Your task to perform on an android device: set an alarm Image 0: 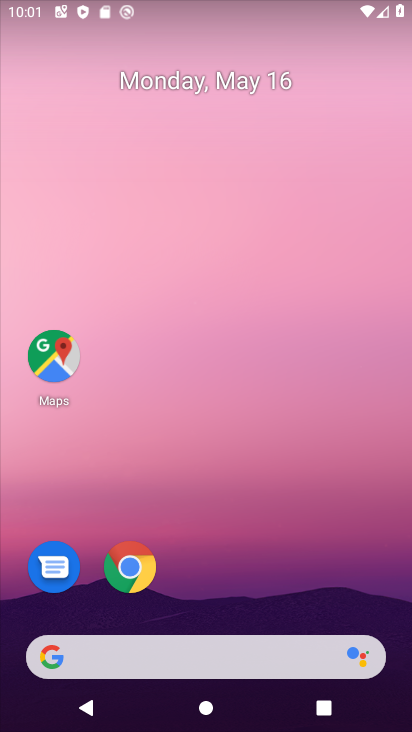
Step 0: drag from (153, 368) to (174, 177)
Your task to perform on an android device: set an alarm Image 1: 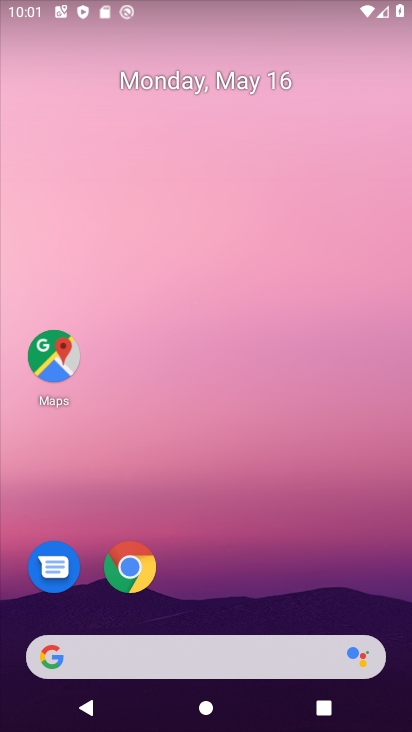
Step 1: drag from (181, 619) to (191, 253)
Your task to perform on an android device: set an alarm Image 2: 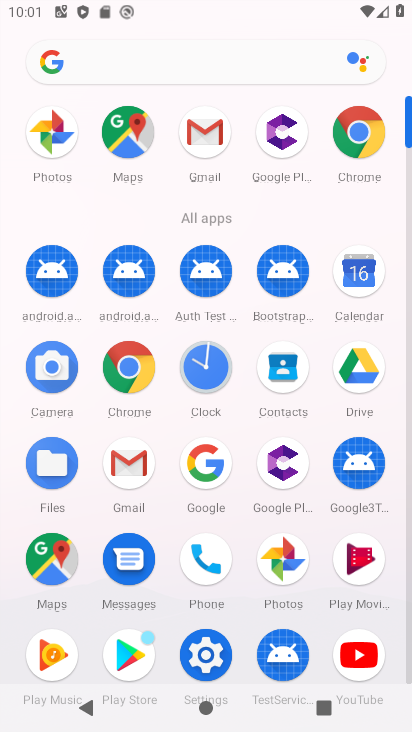
Step 2: click (204, 351)
Your task to perform on an android device: set an alarm Image 3: 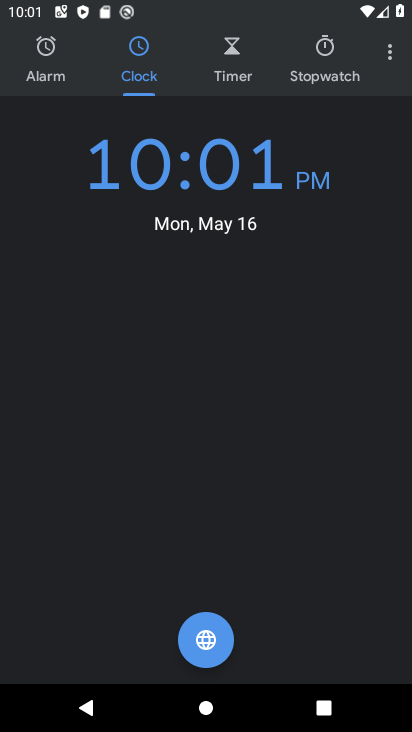
Step 3: click (44, 55)
Your task to perform on an android device: set an alarm Image 4: 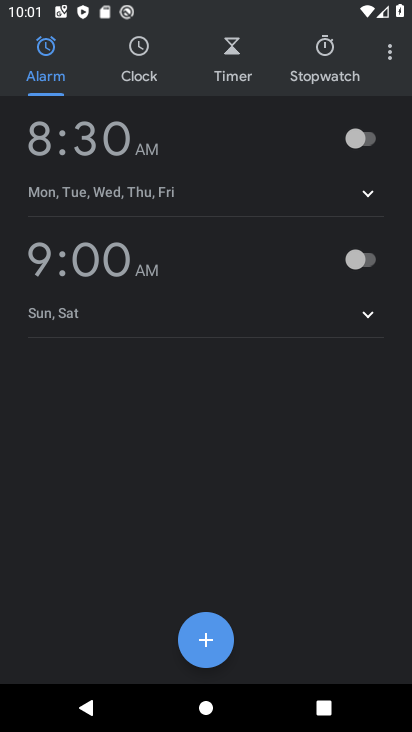
Step 4: click (212, 650)
Your task to perform on an android device: set an alarm Image 5: 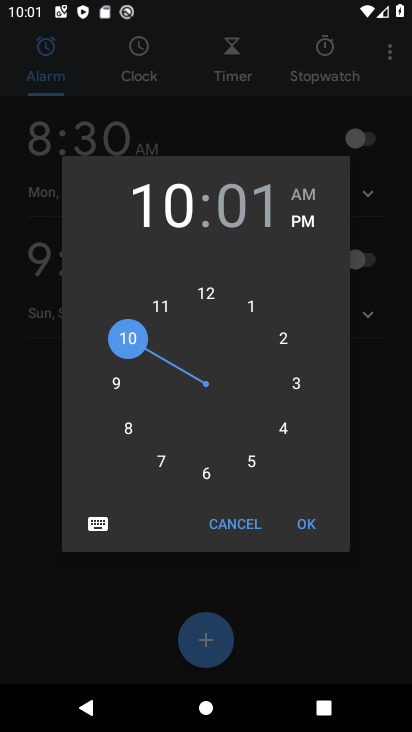
Step 5: click (118, 388)
Your task to perform on an android device: set an alarm Image 6: 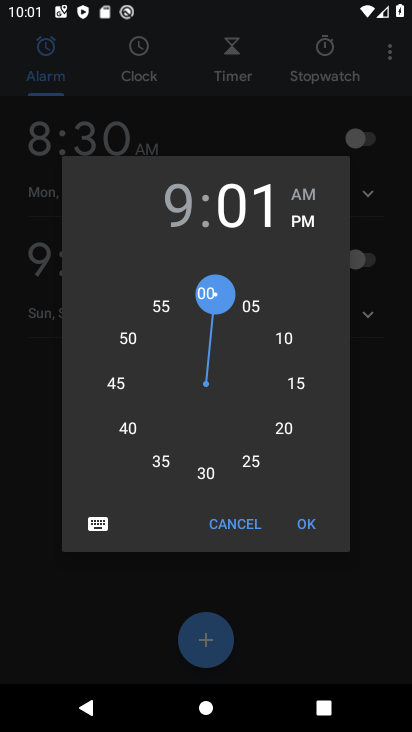
Step 6: click (206, 472)
Your task to perform on an android device: set an alarm Image 7: 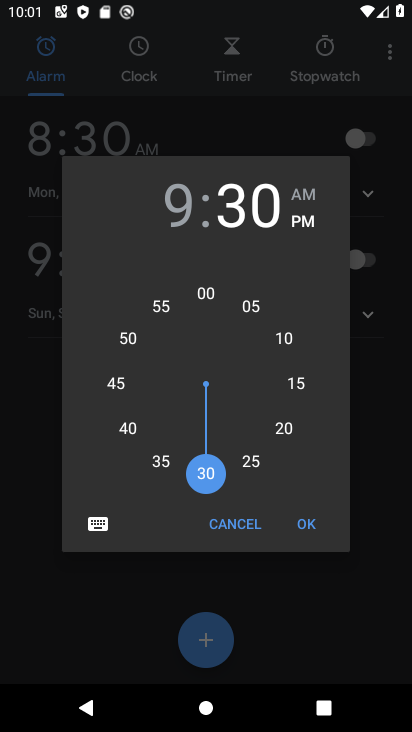
Step 7: click (186, 208)
Your task to perform on an android device: set an alarm Image 8: 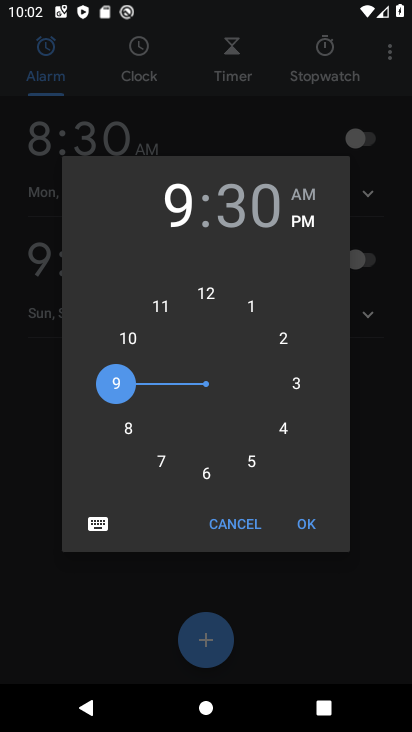
Step 8: click (308, 219)
Your task to perform on an android device: set an alarm Image 9: 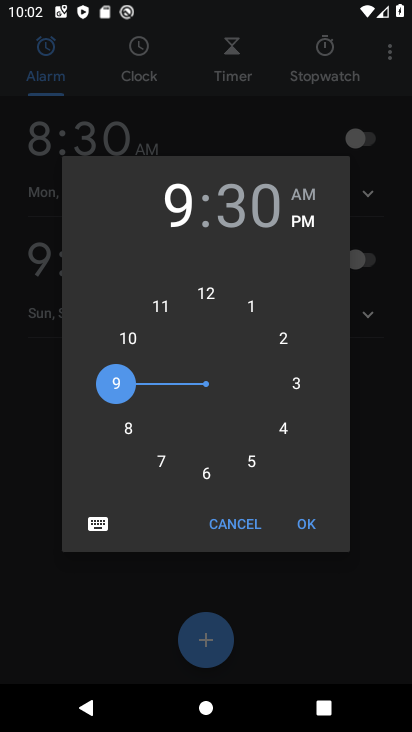
Step 9: click (304, 521)
Your task to perform on an android device: set an alarm Image 10: 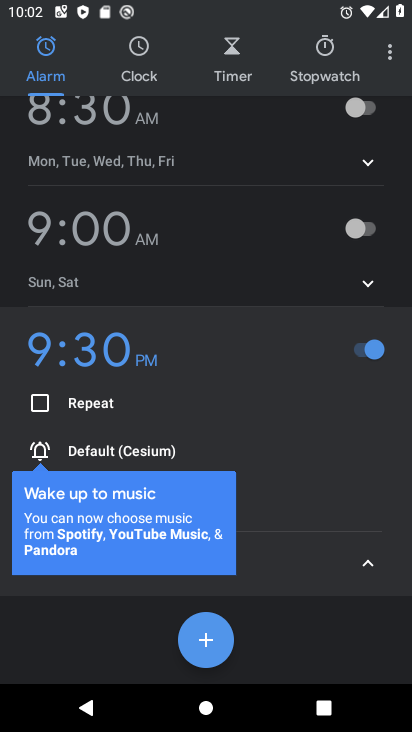
Step 10: task complete